Your task to perform on an android device: move a message to another label in the gmail app Image 0: 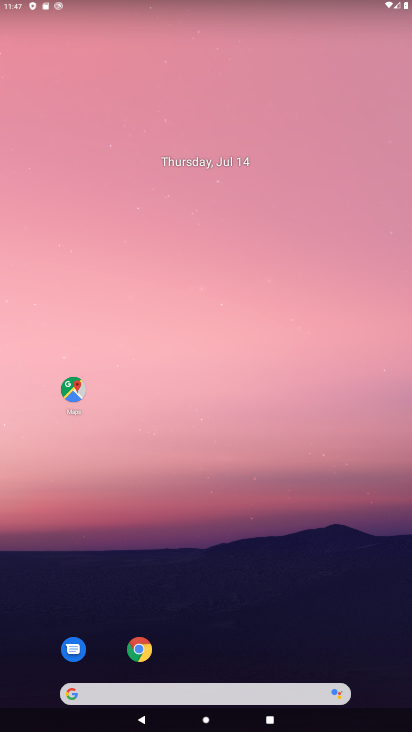
Step 0: drag from (203, 645) to (210, 286)
Your task to perform on an android device: move a message to another label in the gmail app Image 1: 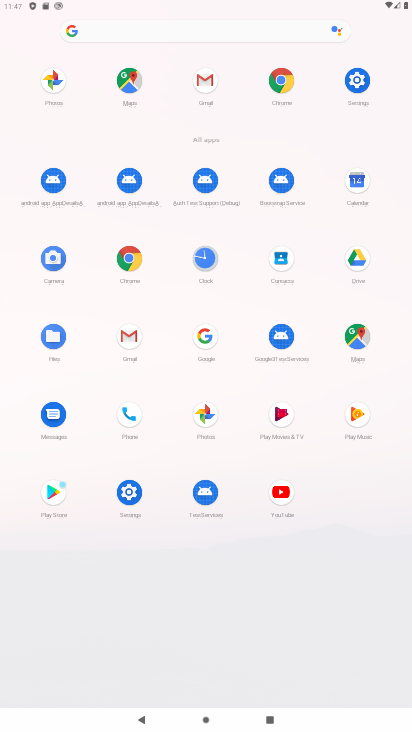
Step 1: click (123, 336)
Your task to perform on an android device: move a message to another label in the gmail app Image 2: 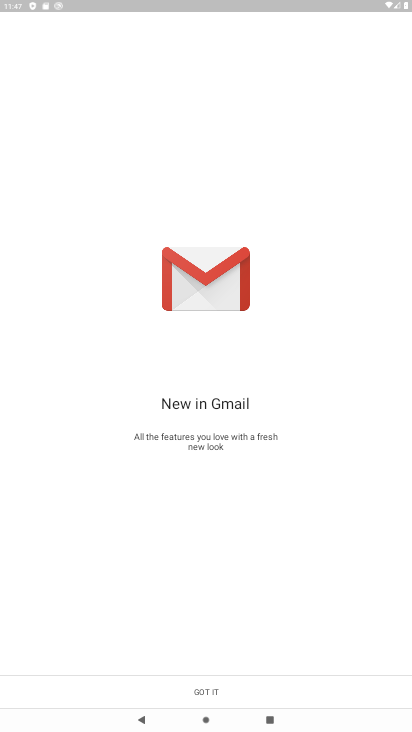
Step 2: click (203, 693)
Your task to perform on an android device: move a message to another label in the gmail app Image 3: 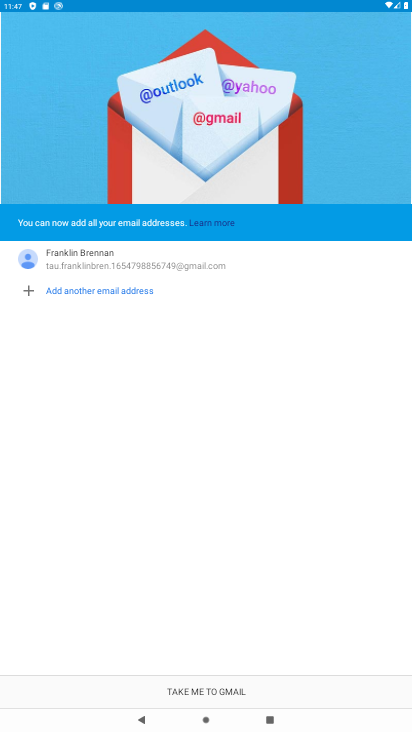
Step 3: click (203, 693)
Your task to perform on an android device: move a message to another label in the gmail app Image 4: 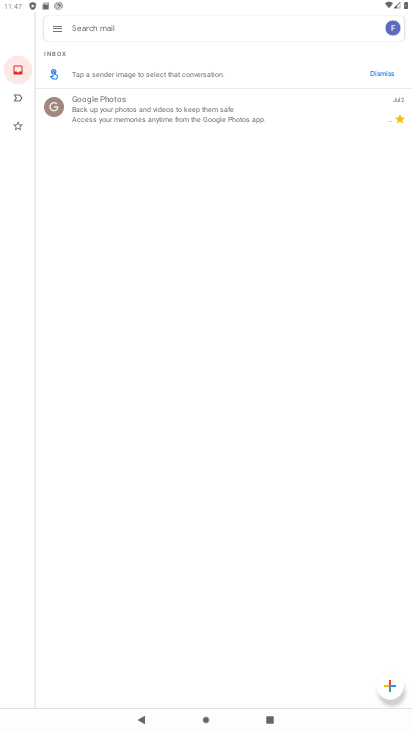
Step 4: click (60, 25)
Your task to perform on an android device: move a message to another label in the gmail app Image 5: 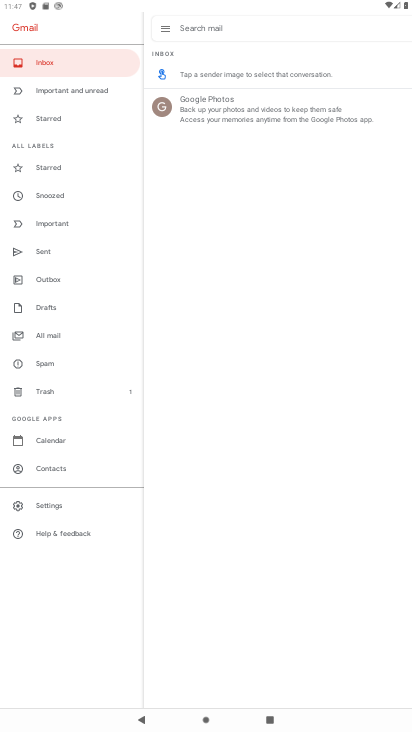
Step 5: click (224, 104)
Your task to perform on an android device: move a message to another label in the gmail app Image 6: 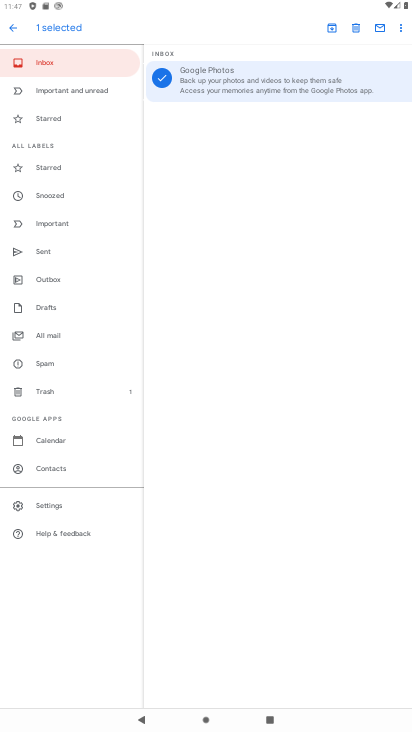
Step 6: click (406, 23)
Your task to perform on an android device: move a message to another label in the gmail app Image 7: 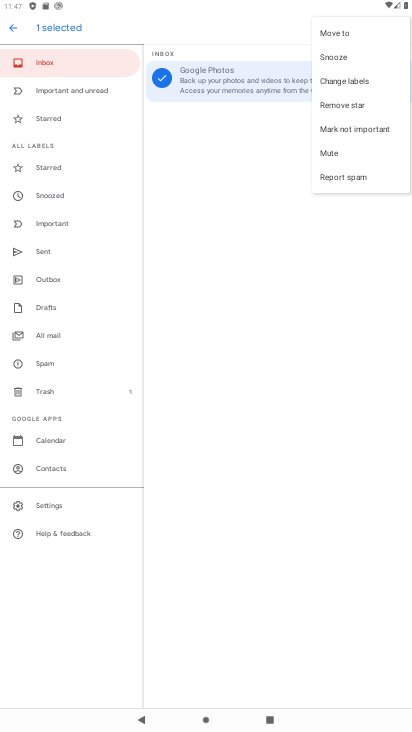
Step 7: click (347, 35)
Your task to perform on an android device: move a message to another label in the gmail app Image 8: 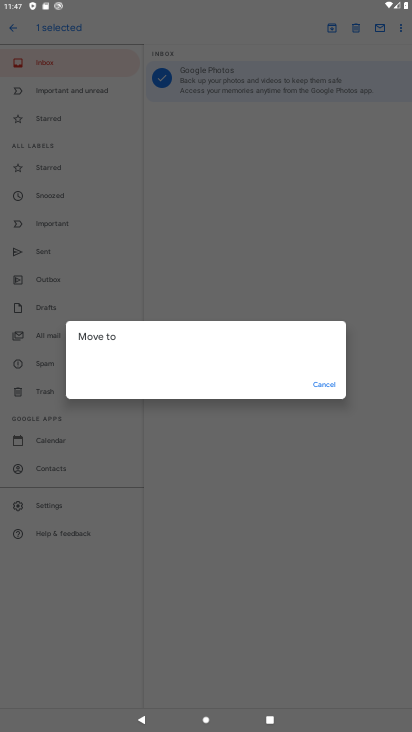
Step 8: click (321, 382)
Your task to perform on an android device: move a message to another label in the gmail app Image 9: 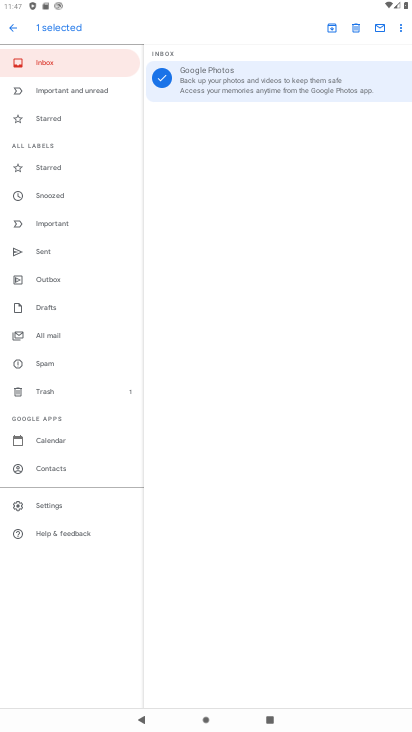
Step 9: task complete